Your task to perform on an android device: snooze an email in the gmail app Image 0: 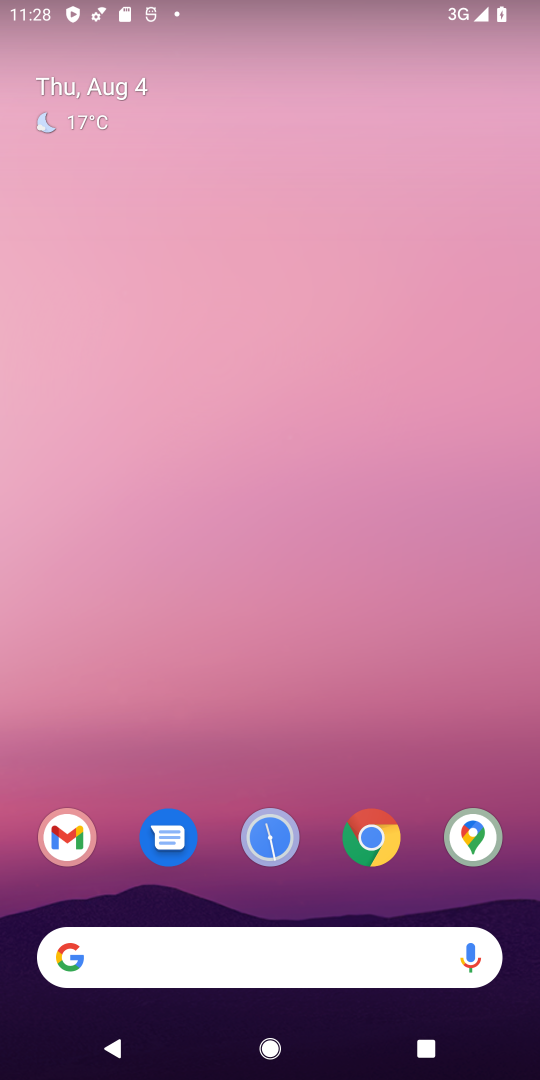
Step 0: drag from (408, 860) to (183, 72)
Your task to perform on an android device: snooze an email in the gmail app Image 1: 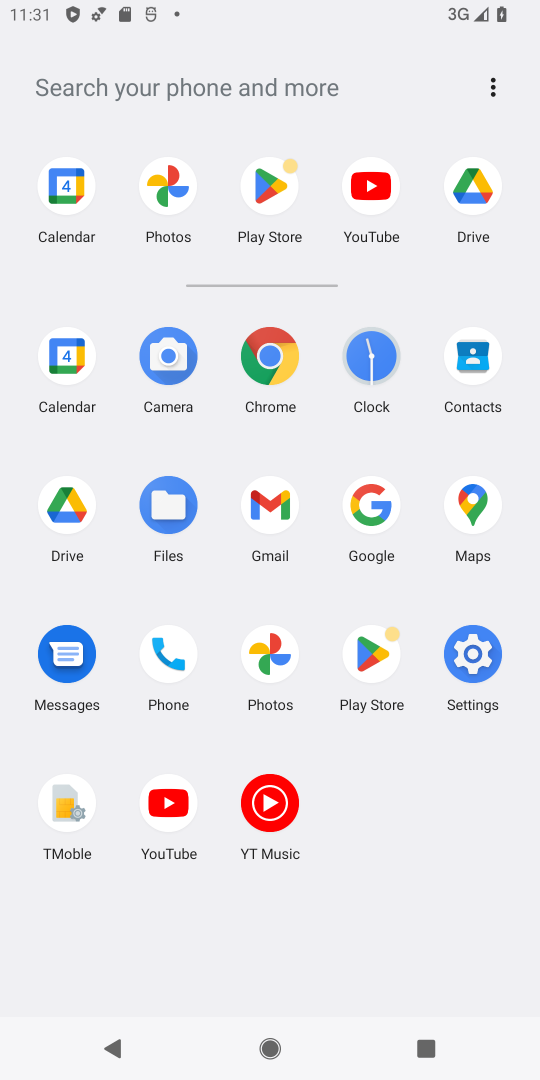
Step 1: click (253, 501)
Your task to perform on an android device: snooze an email in the gmail app Image 2: 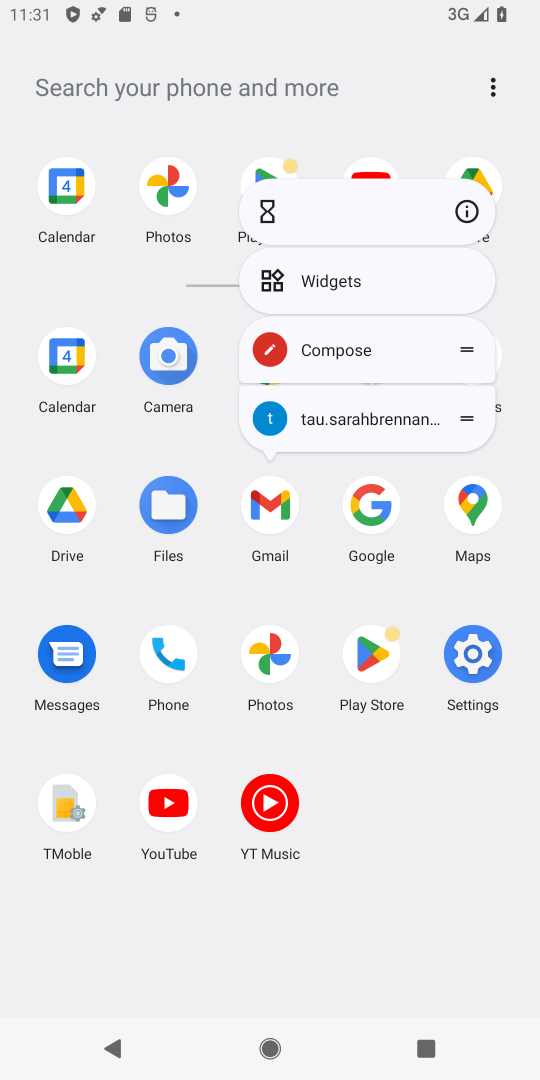
Step 2: click (253, 501)
Your task to perform on an android device: snooze an email in the gmail app Image 3: 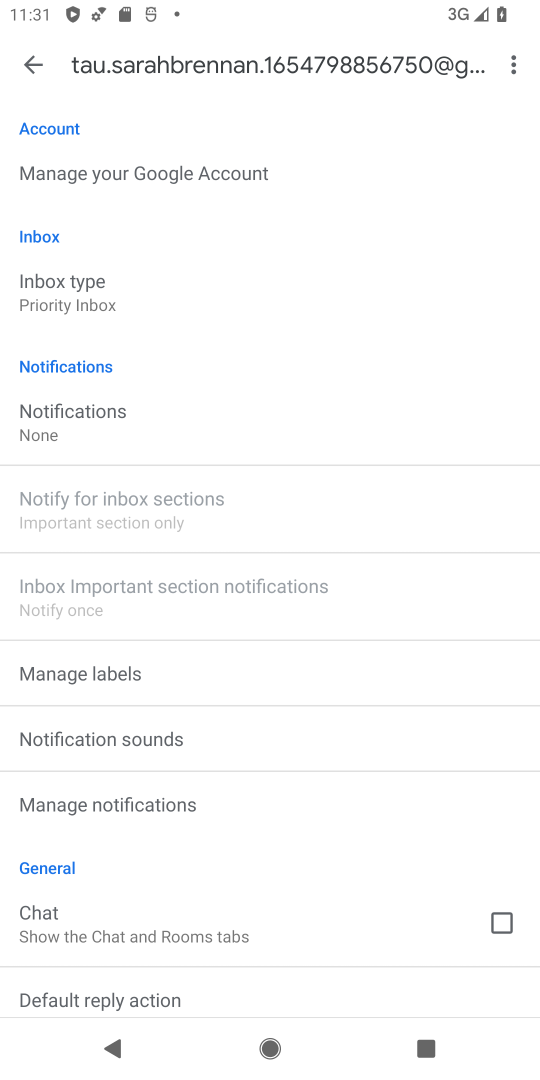
Step 3: task complete